Your task to perform on an android device: Open calendar and show me the third week of next month Image 0: 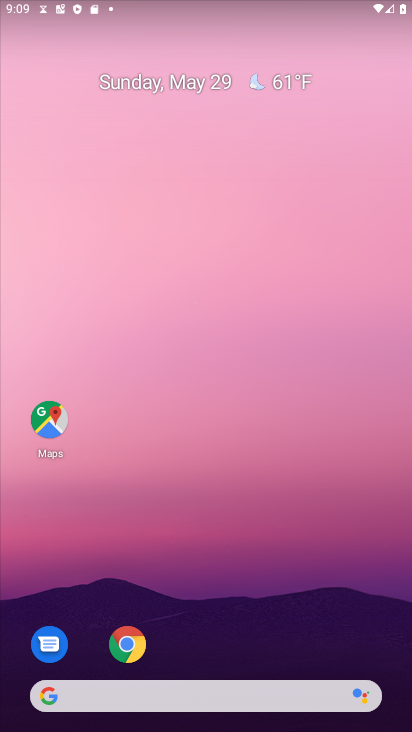
Step 0: drag from (207, 692) to (170, 199)
Your task to perform on an android device: Open calendar and show me the third week of next month Image 1: 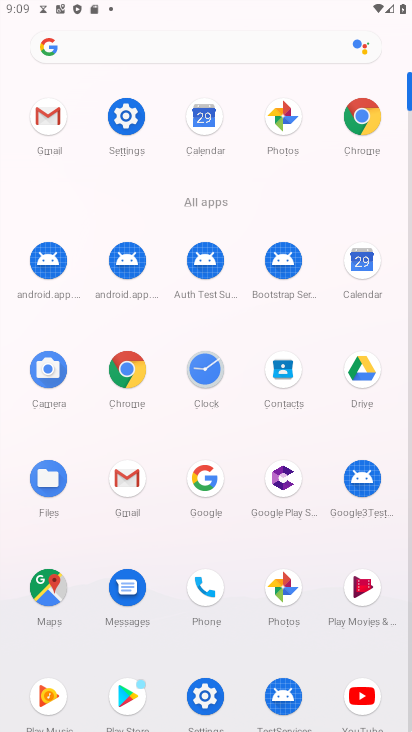
Step 1: click (218, 130)
Your task to perform on an android device: Open calendar and show me the third week of next month Image 2: 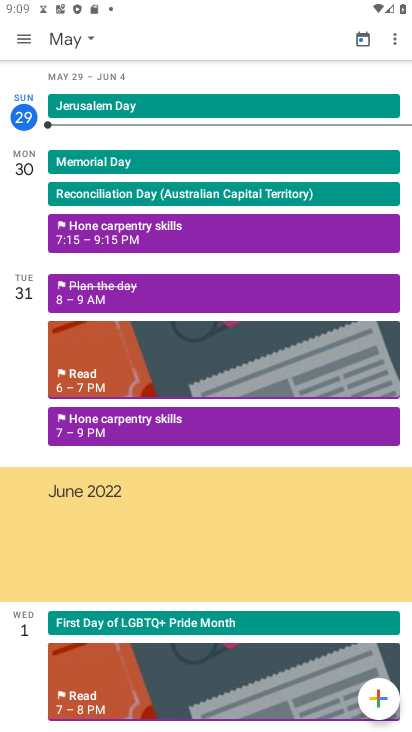
Step 2: click (20, 35)
Your task to perform on an android device: Open calendar and show me the third week of next month Image 3: 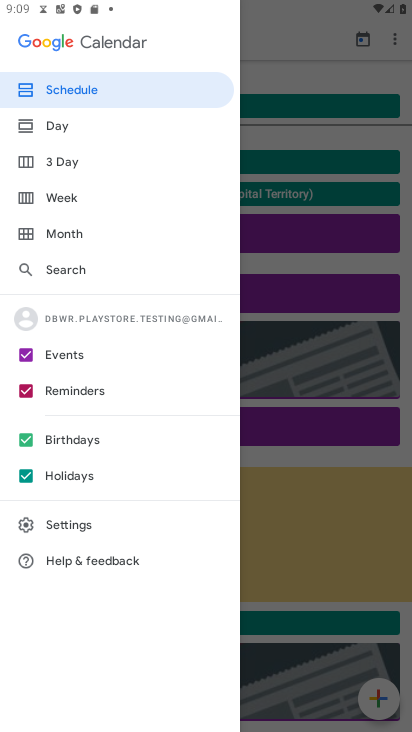
Step 3: click (74, 240)
Your task to perform on an android device: Open calendar and show me the third week of next month Image 4: 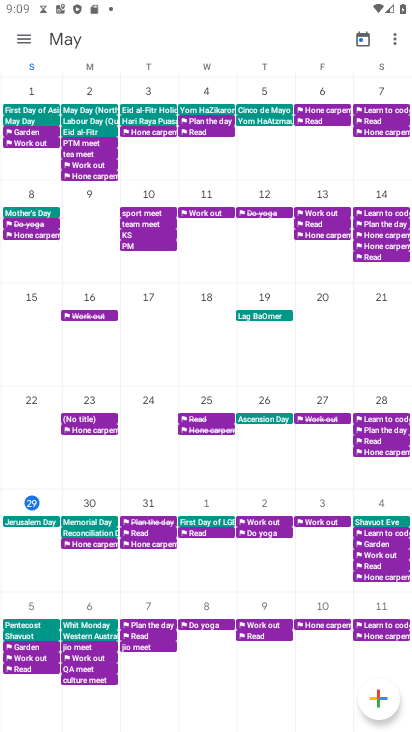
Step 4: task complete